Your task to perform on an android device: Open calendar and show me the second week of next month Image 0: 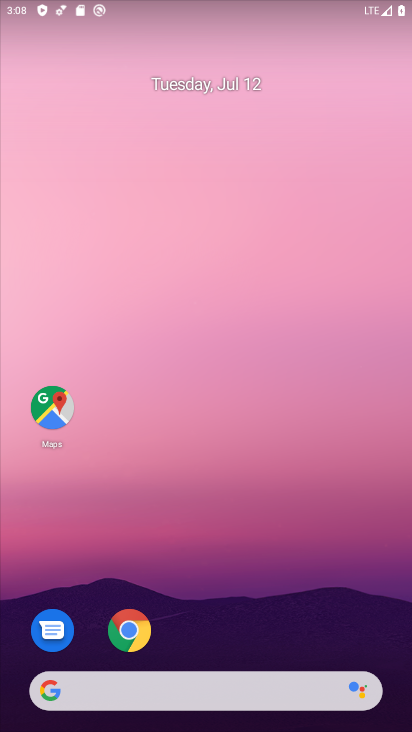
Step 0: drag from (273, 596) to (240, 41)
Your task to perform on an android device: Open calendar and show me the second week of next month Image 1: 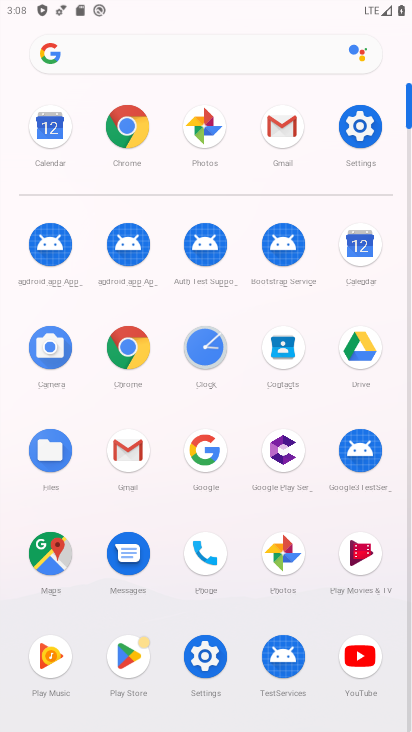
Step 1: click (359, 243)
Your task to perform on an android device: Open calendar and show me the second week of next month Image 2: 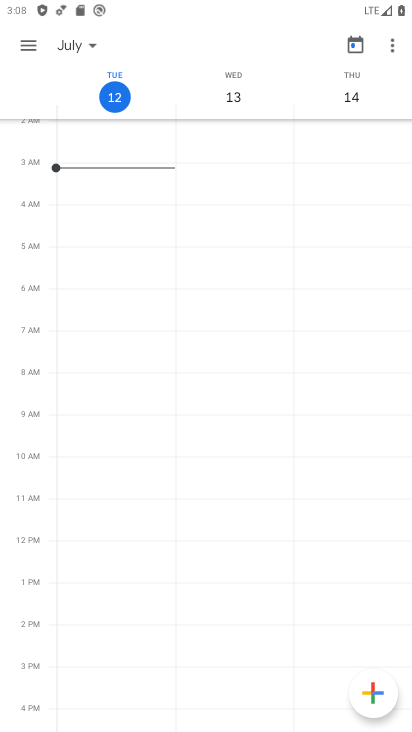
Step 2: click (24, 40)
Your task to perform on an android device: Open calendar and show me the second week of next month Image 3: 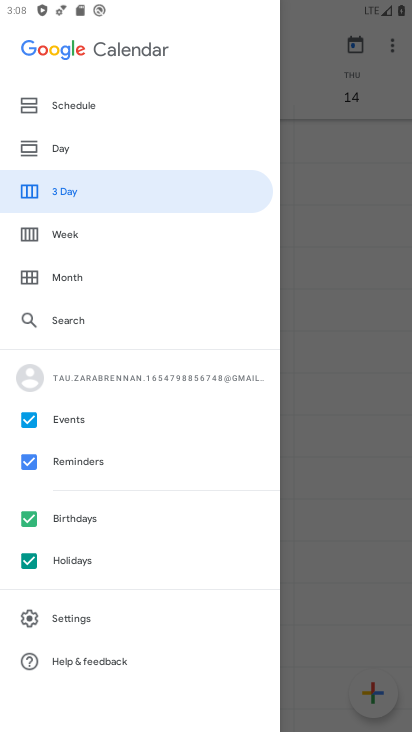
Step 3: click (80, 244)
Your task to perform on an android device: Open calendar and show me the second week of next month Image 4: 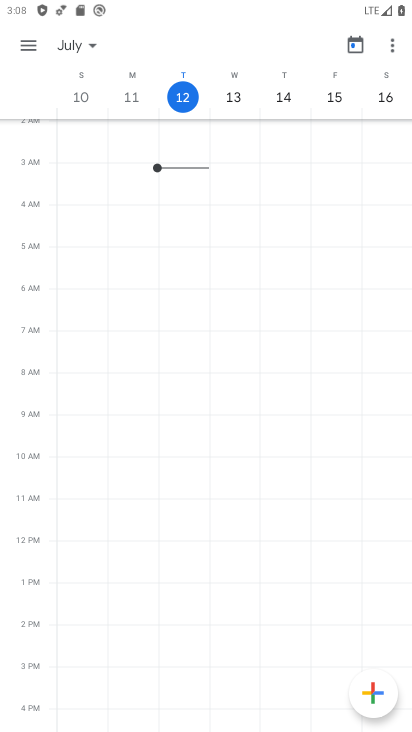
Step 4: task complete